Your task to perform on an android device: What's on my calendar tomorrow? Image 0: 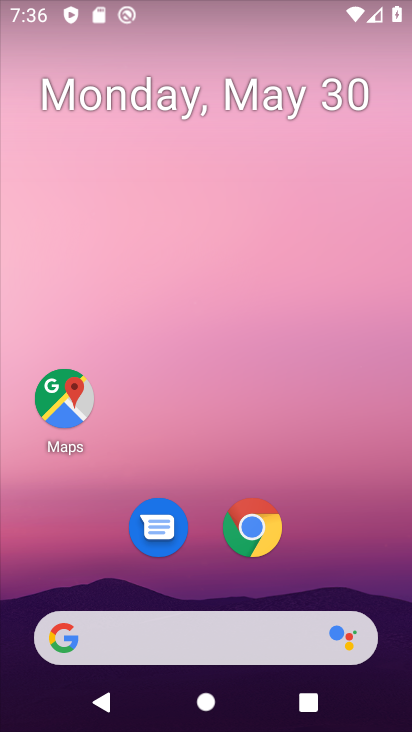
Step 0: click (375, 46)
Your task to perform on an android device: What's on my calendar tomorrow? Image 1: 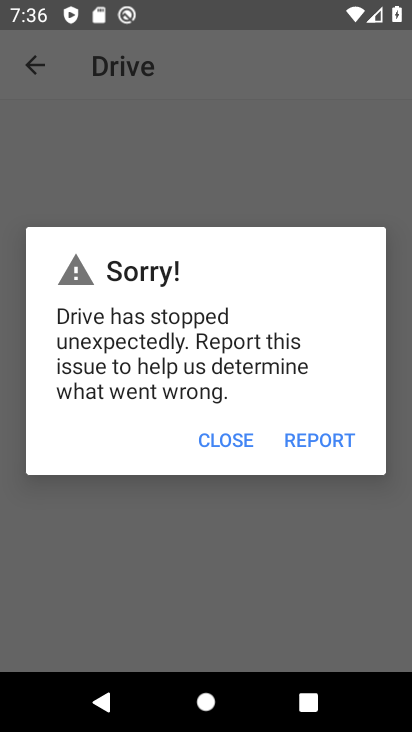
Step 1: press home button
Your task to perform on an android device: What's on my calendar tomorrow? Image 2: 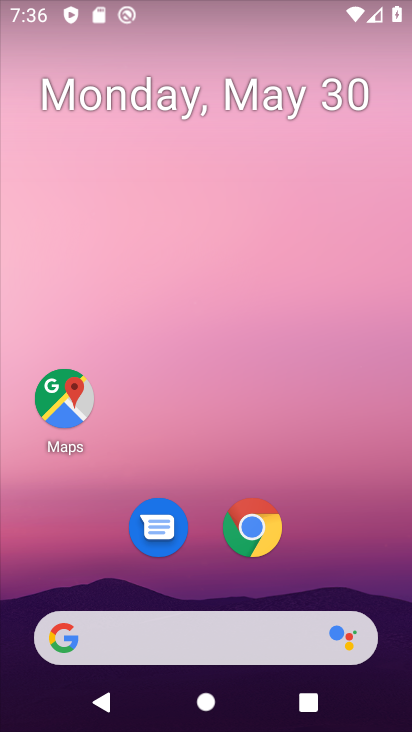
Step 2: click (215, 40)
Your task to perform on an android device: What's on my calendar tomorrow? Image 3: 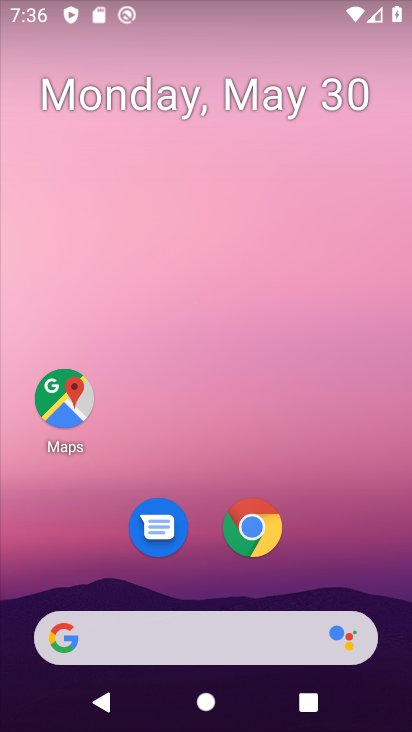
Step 3: drag from (214, 565) to (217, 10)
Your task to perform on an android device: What's on my calendar tomorrow? Image 4: 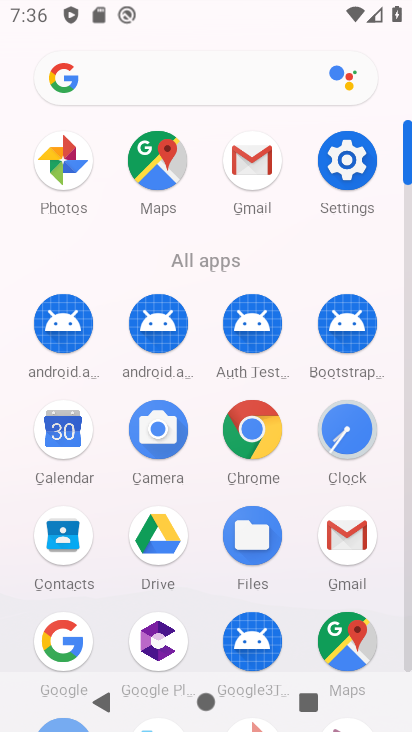
Step 4: click (53, 454)
Your task to perform on an android device: What's on my calendar tomorrow? Image 5: 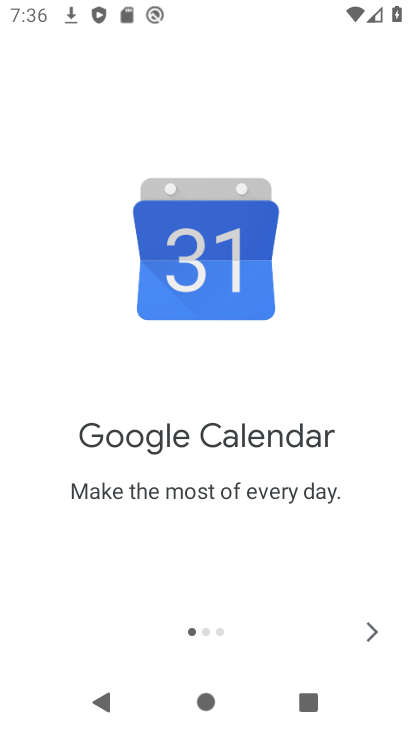
Step 5: click (362, 634)
Your task to perform on an android device: What's on my calendar tomorrow? Image 6: 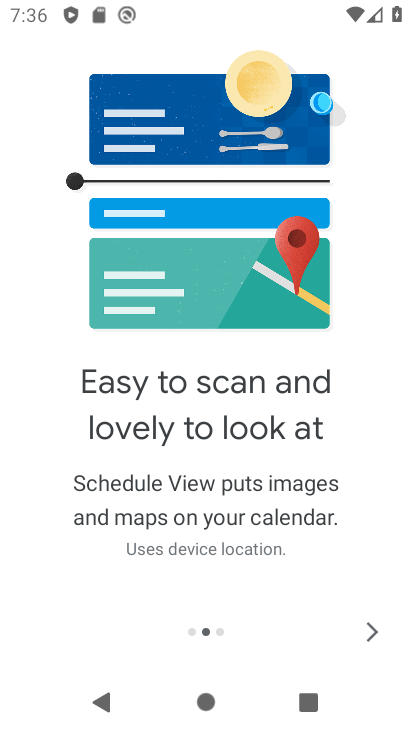
Step 6: click (361, 628)
Your task to perform on an android device: What's on my calendar tomorrow? Image 7: 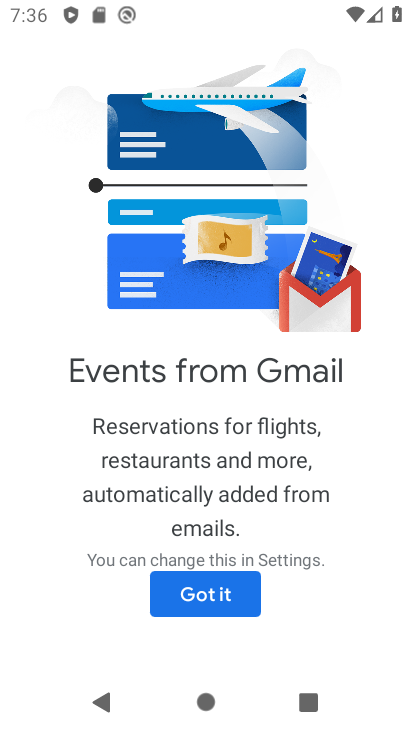
Step 7: click (199, 588)
Your task to perform on an android device: What's on my calendar tomorrow? Image 8: 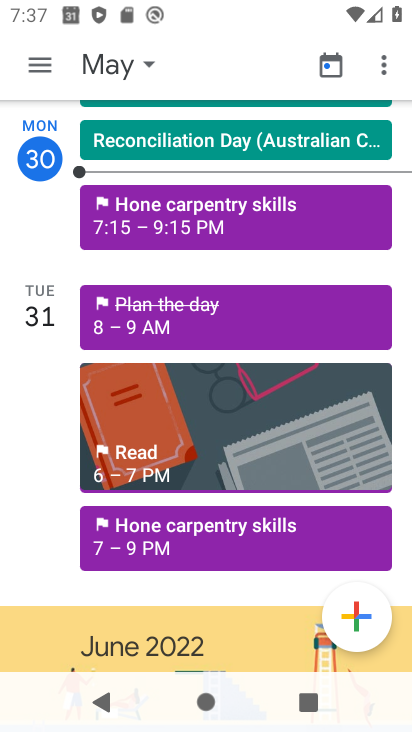
Step 8: click (92, 64)
Your task to perform on an android device: What's on my calendar tomorrow? Image 9: 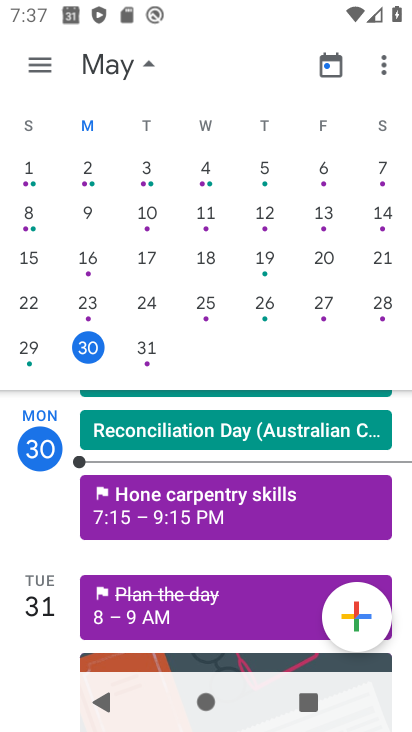
Step 9: click (138, 349)
Your task to perform on an android device: What's on my calendar tomorrow? Image 10: 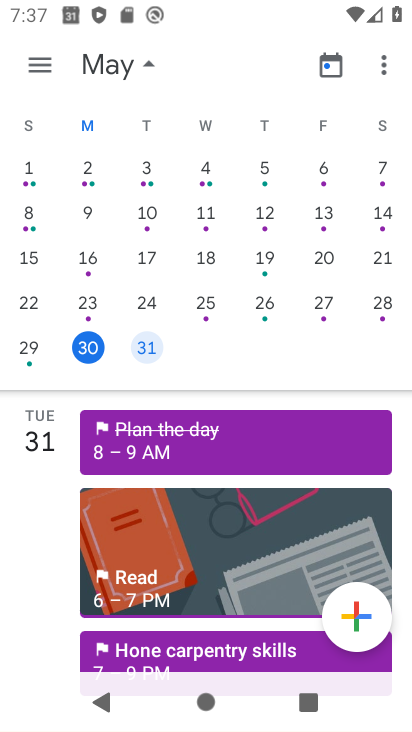
Step 10: task complete